Your task to perform on an android device: Is it going to rain tomorrow? Image 0: 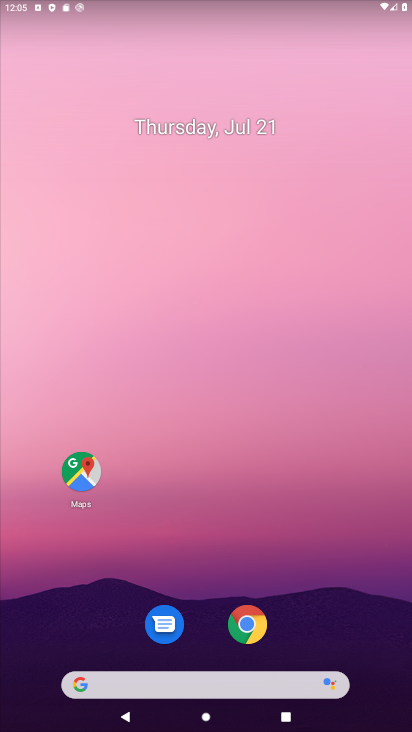
Step 0: drag from (197, 596) to (217, 97)
Your task to perform on an android device: Is it going to rain tomorrow? Image 1: 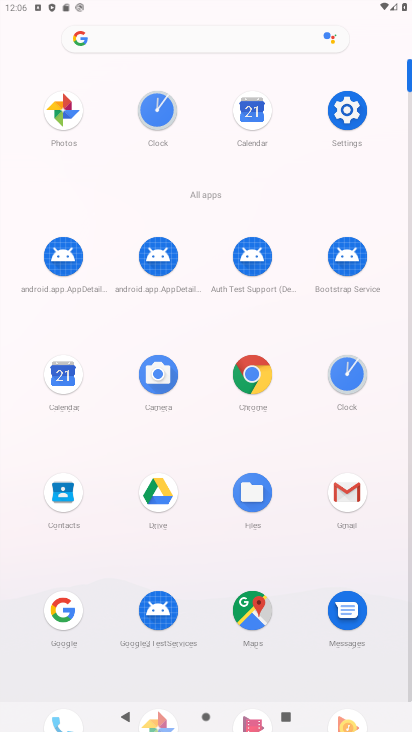
Step 1: click (53, 595)
Your task to perform on an android device: Is it going to rain tomorrow? Image 2: 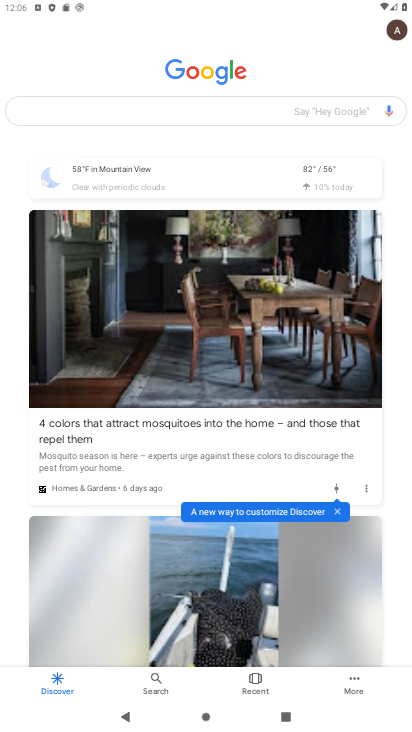
Step 2: click (116, 103)
Your task to perform on an android device: Is it going to rain tomorrow? Image 3: 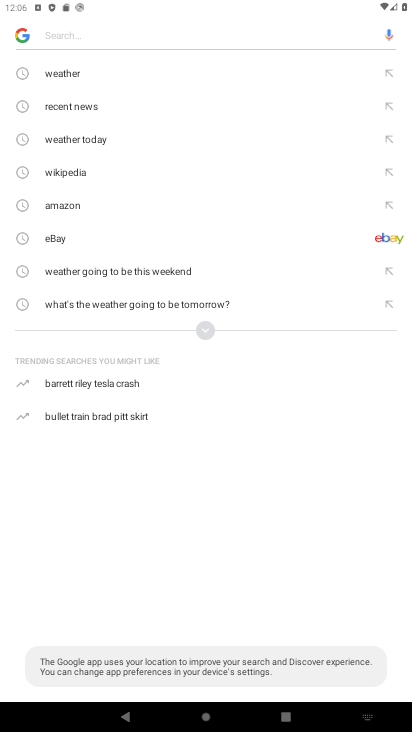
Step 3: click (86, 78)
Your task to perform on an android device: Is it going to rain tomorrow? Image 4: 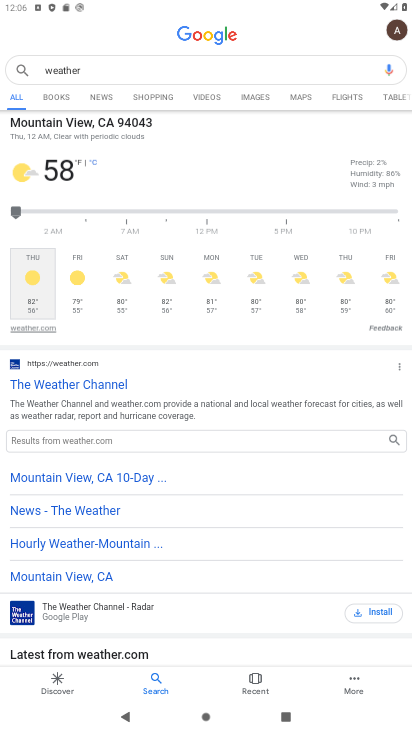
Step 4: task complete